Your task to perform on an android device: Show me productivity apps on the Play Store Image 0: 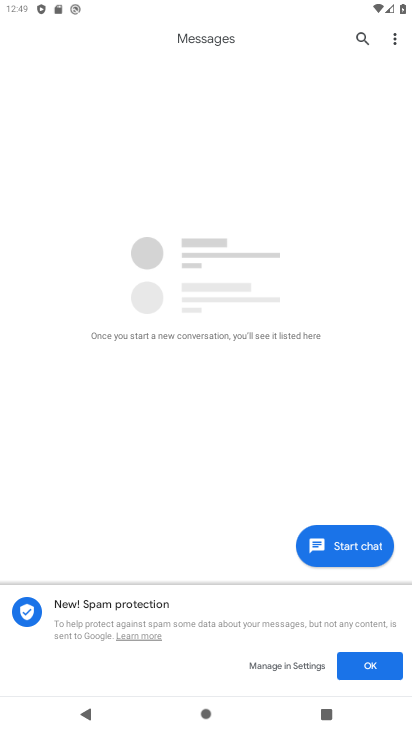
Step 0: press home button
Your task to perform on an android device: Show me productivity apps on the Play Store Image 1: 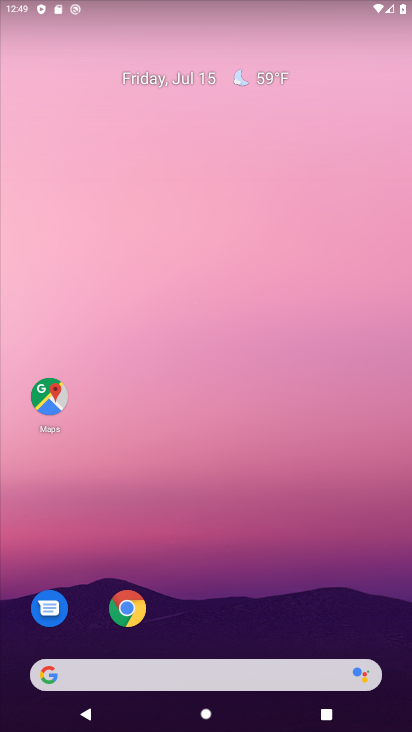
Step 1: drag from (200, 653) to (203, 163)
Your task to perform on an android device: Show me productivity apps on the Play Store Image 2: 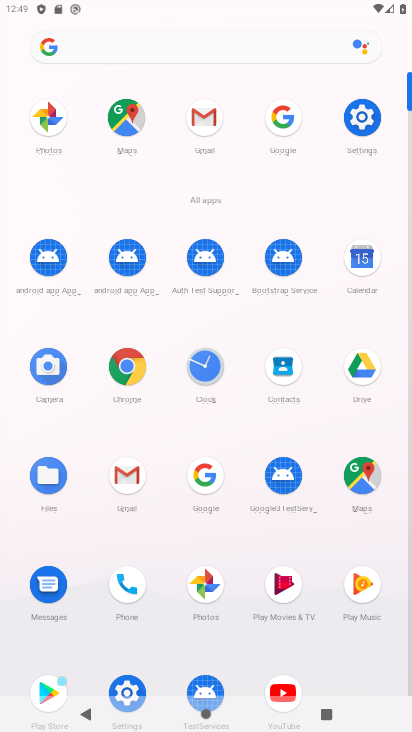
Step 2: click (51, 689)
Your task to perform on an android device: Show me productivity apps on the Play Store Image 3: 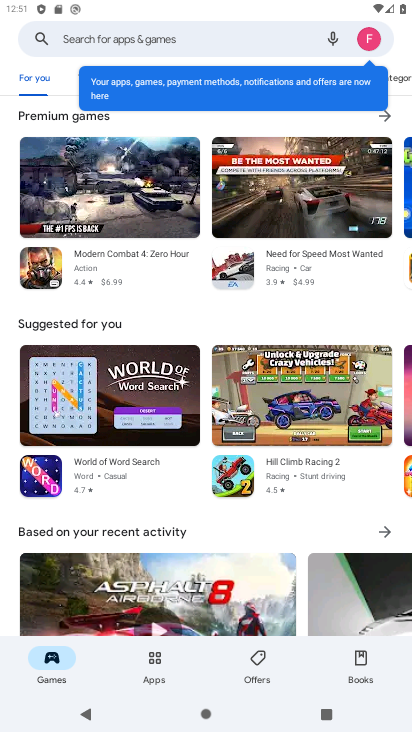
Step 3: click (157, 665)
Your task to perform on an android device: Show me productivity apps on the Play Store Image 4: 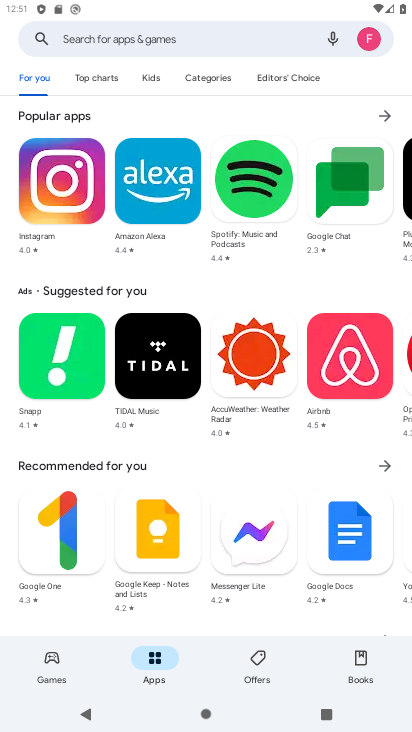
Step 4: task complete